Your task to perform on an android device: install app "Reddit" Image 0: 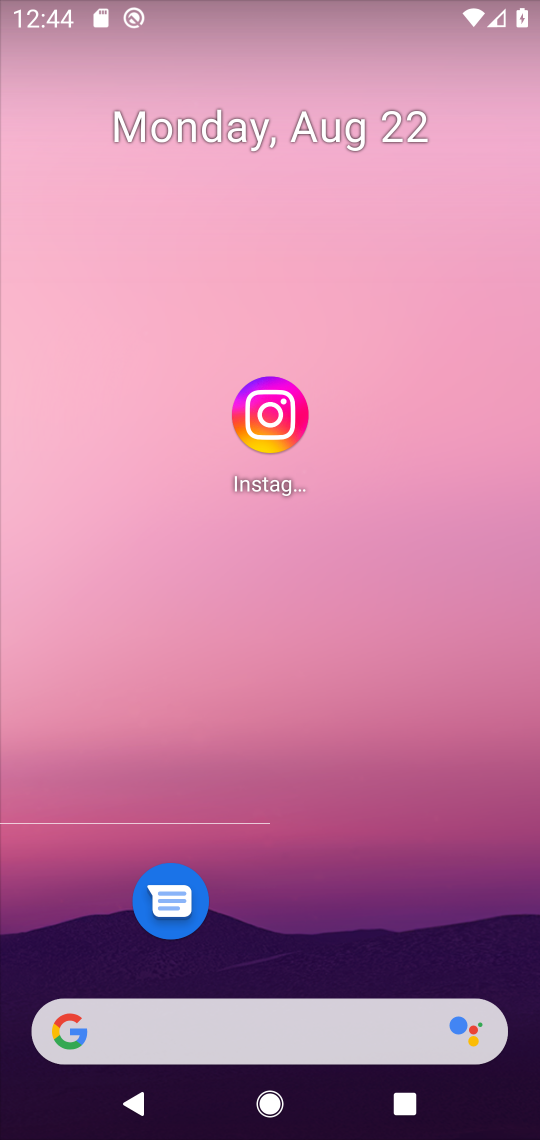
Step 0: drag from (361, 662) to (362, 199)
Your task to perform on an android device: install app "Reddit" Image 1: 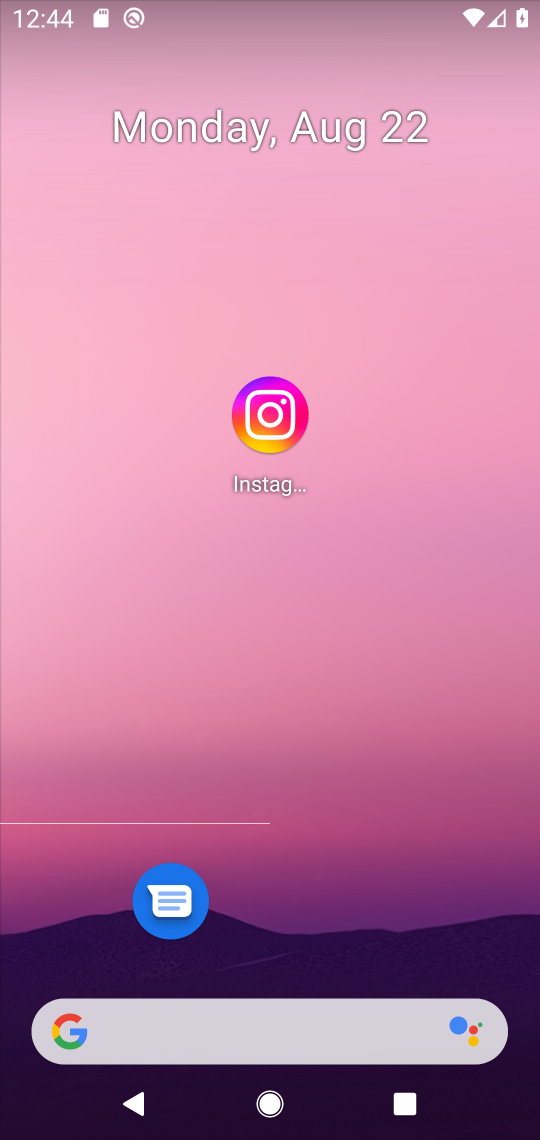
Step 1: drag from (313, 962) to (303, 225)
Your task to perform on an android device: install app "Reddit" Image 2: 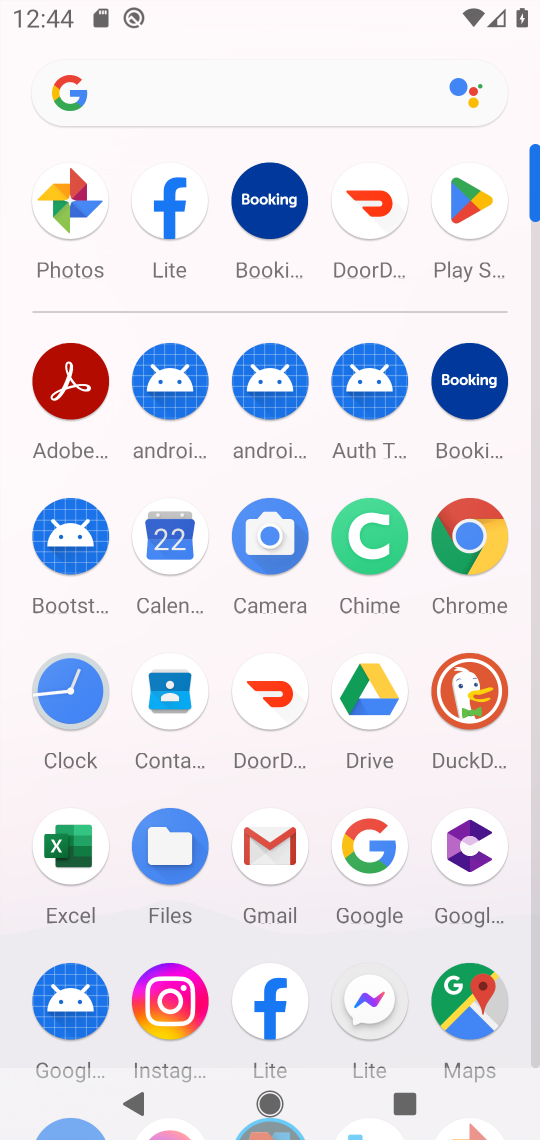
Step 2: click (437, 220)
Your task to perform on an android device: install app "Reddit" Image 3: 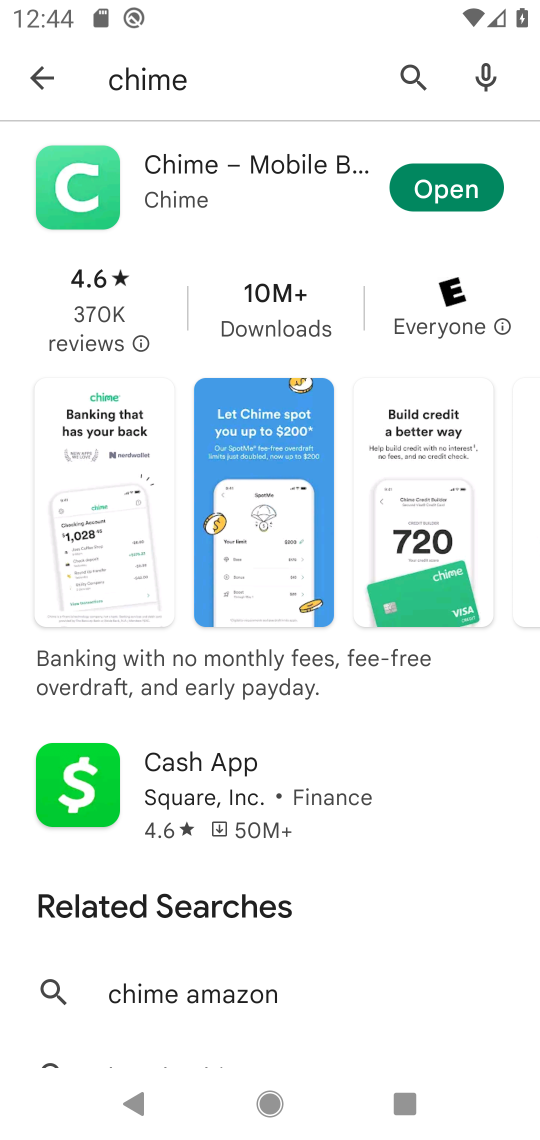
Step 3: click (418, 104)
Your task to perform on an android device: install app "Reddit" Image 4: 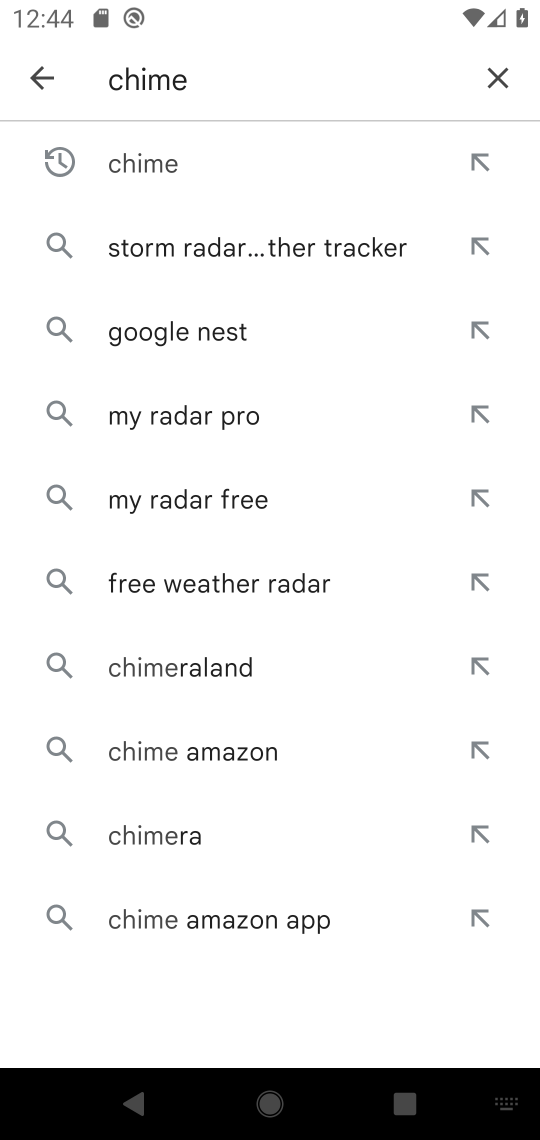
Step 4: click (494, 72)
Your task to perform on an android device: install app "Reddit" Image 5: 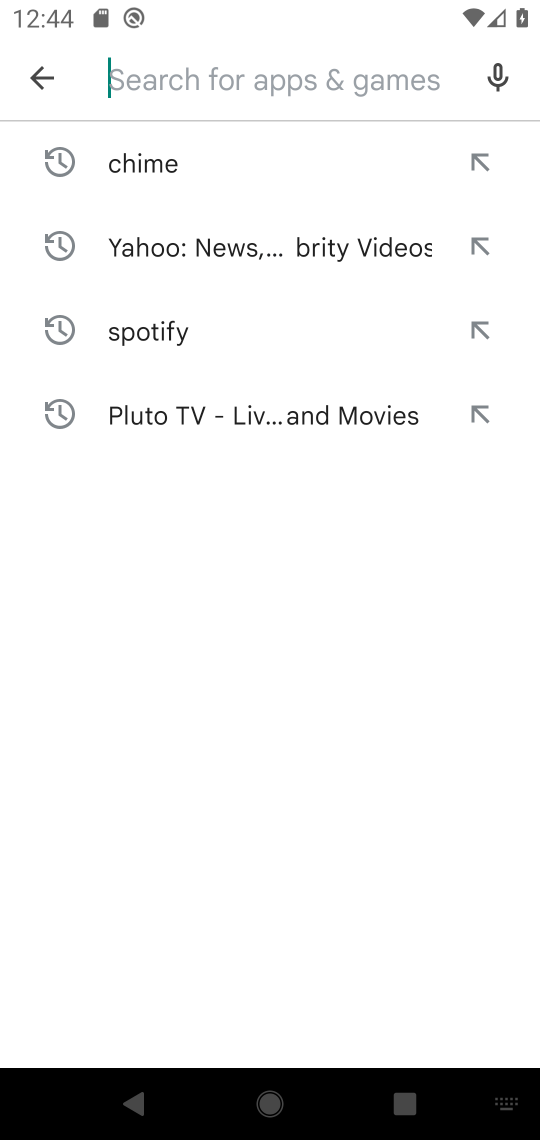
Step 5: type "reddit"
Your task to perform on an android device: install app "Reddit" Image 6: 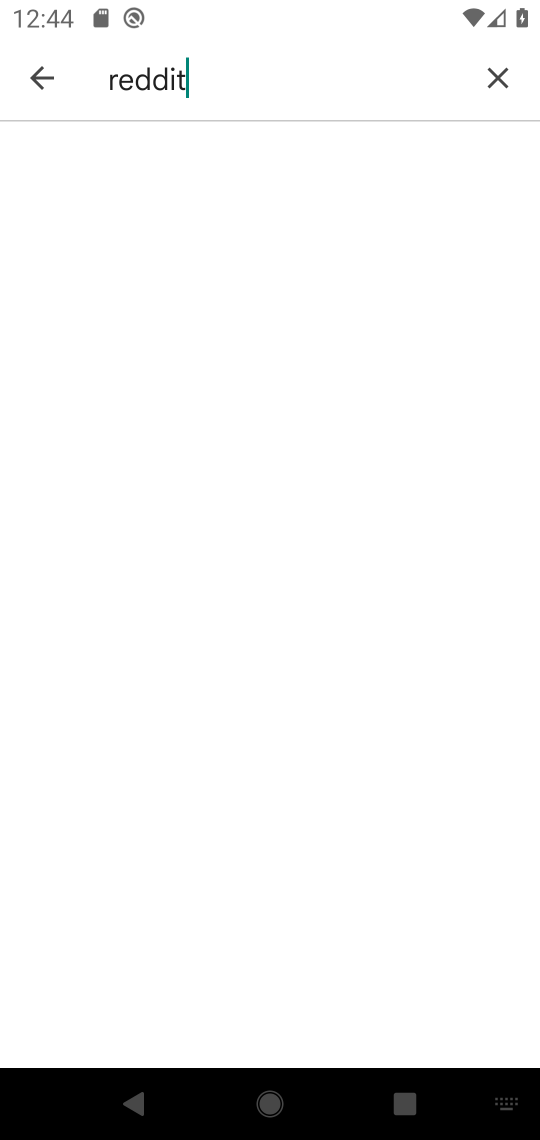
Step 6: task complete